Your task to perform on an android device: Search for Italian restaurants on Maps Image 0: 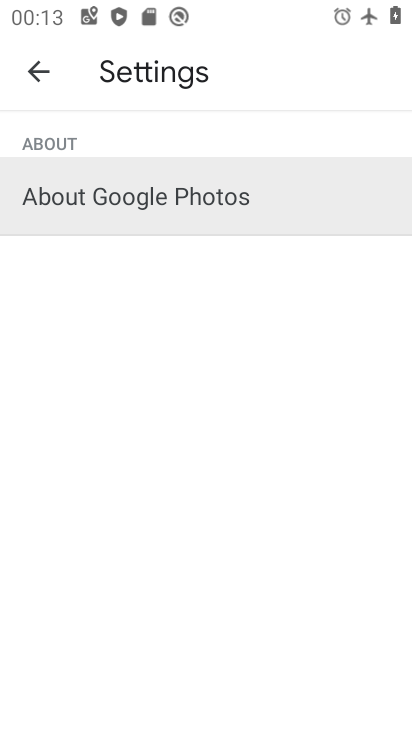
Step 0: press home button
Your task to perform on an android device: Search for Italian restaurants on Maps Image 1: 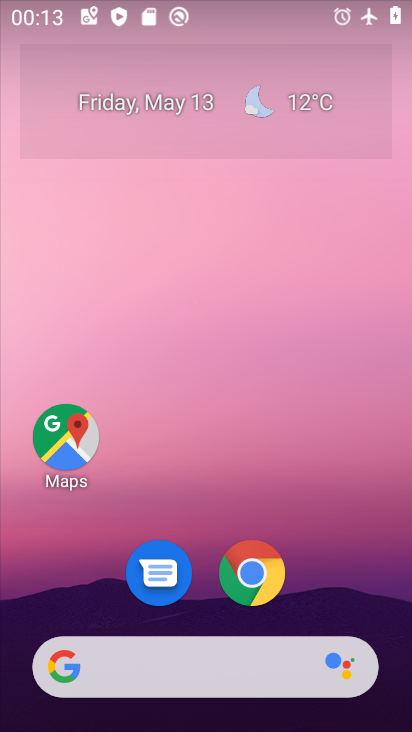
Step 1: click (57, 437)
Your task to perform on an android device: Search for Italian restaurants on Maps Image 2: 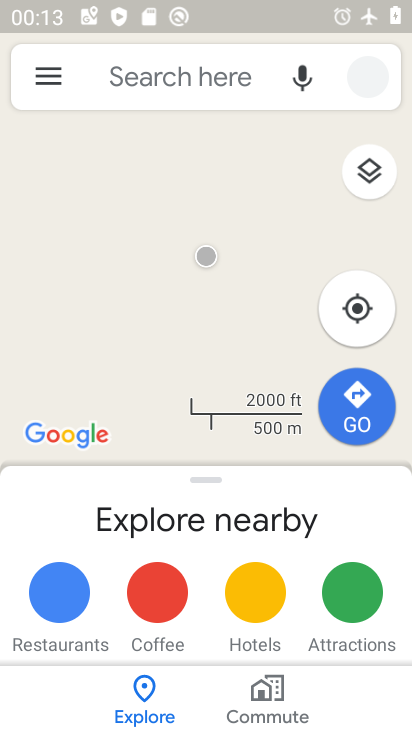
Step 2: click (179, 61)
Your task to perform on an android device: Search for Italian restaurants on Maps Image 3: 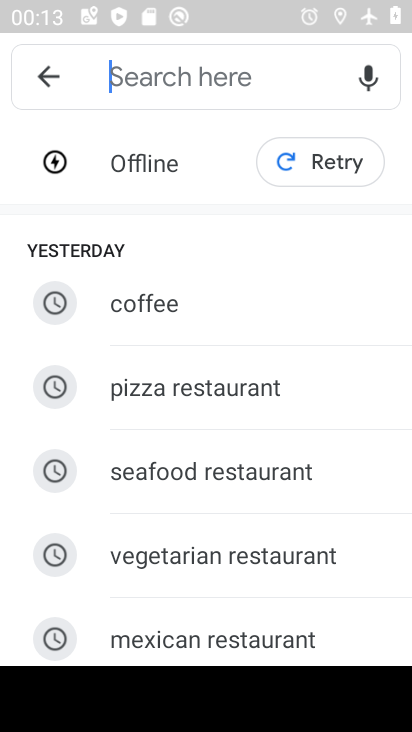
Step 3: type "italian "
Your task to perform on an android device: Search for Italian restaurants on Maps Image 4: 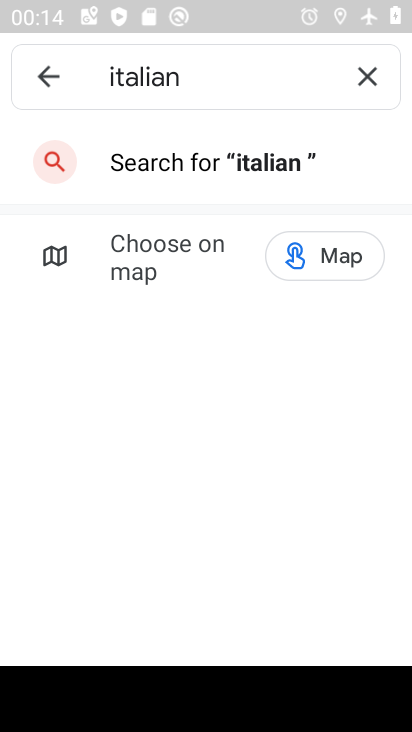
Step 4: task complete